Your task to perform on an android device: delete location history Image 0: 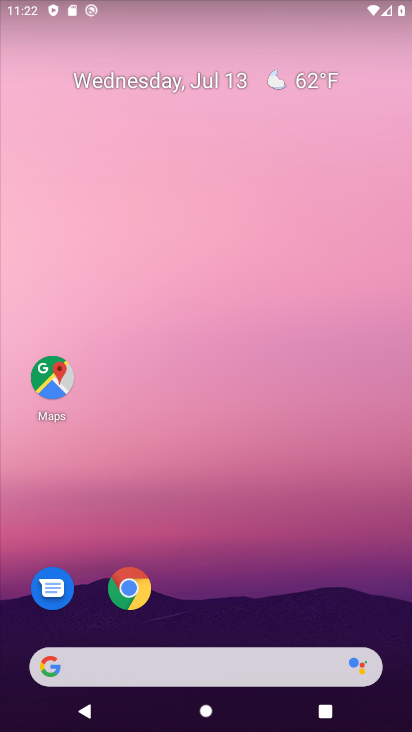
Step 0: drag from (191, 617) to (179, 208)
Your task to perform on an android device: delete location history Image 1: 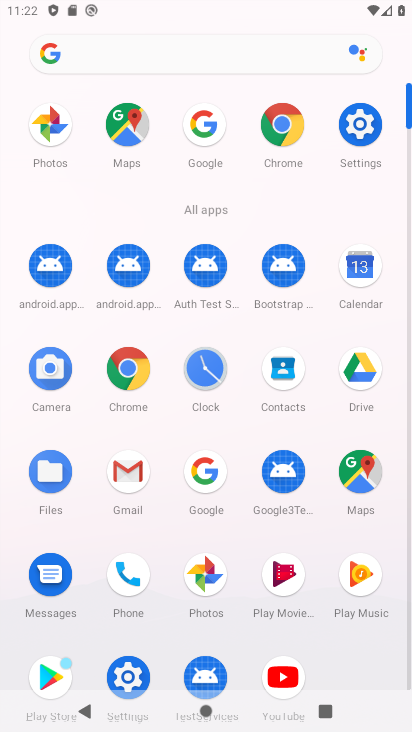
Step 1: click (283, 123)
Your task to perform on an android device: delete location history Image 2: 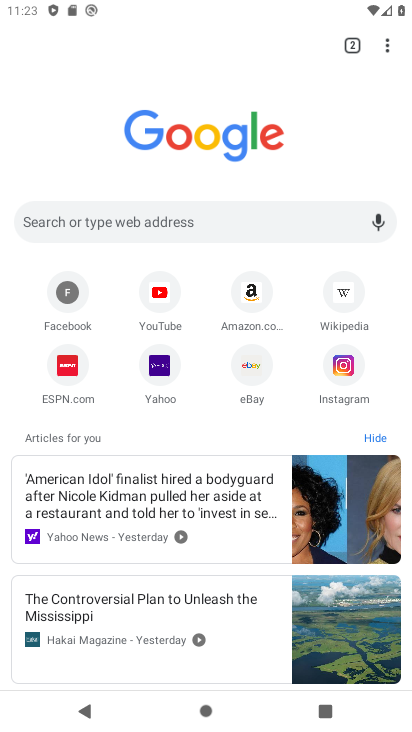
Step 2: click (252, 290)
Your task to perform on an android device: delete location history Image 3: 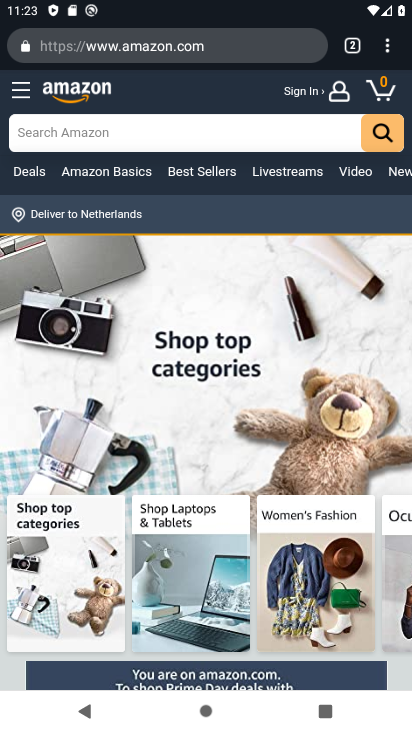
Step 3: task complete